Your task to perform on an android device: open app "Instagram" Image 0: 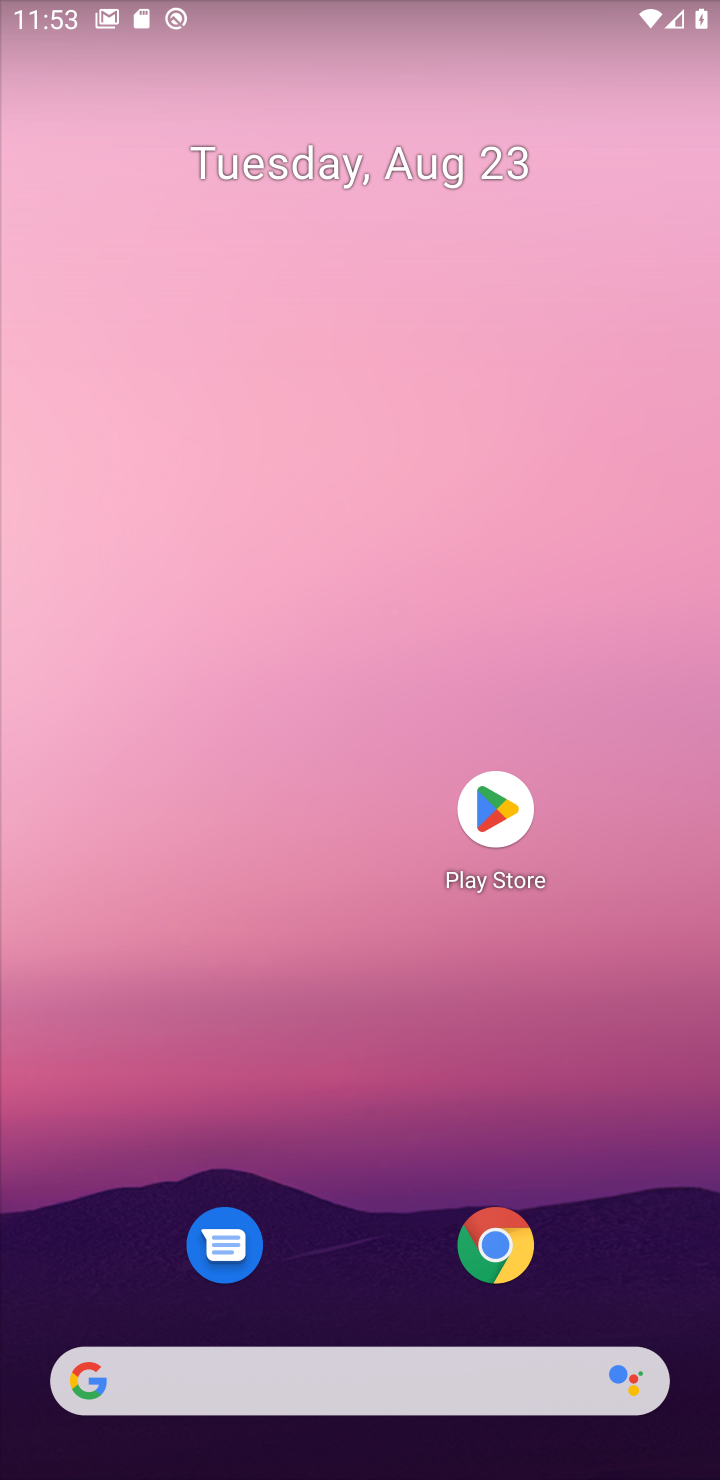
Step 0: click (485, 808)
Your task to perform on an android device: open app "Instagram" Image 1: 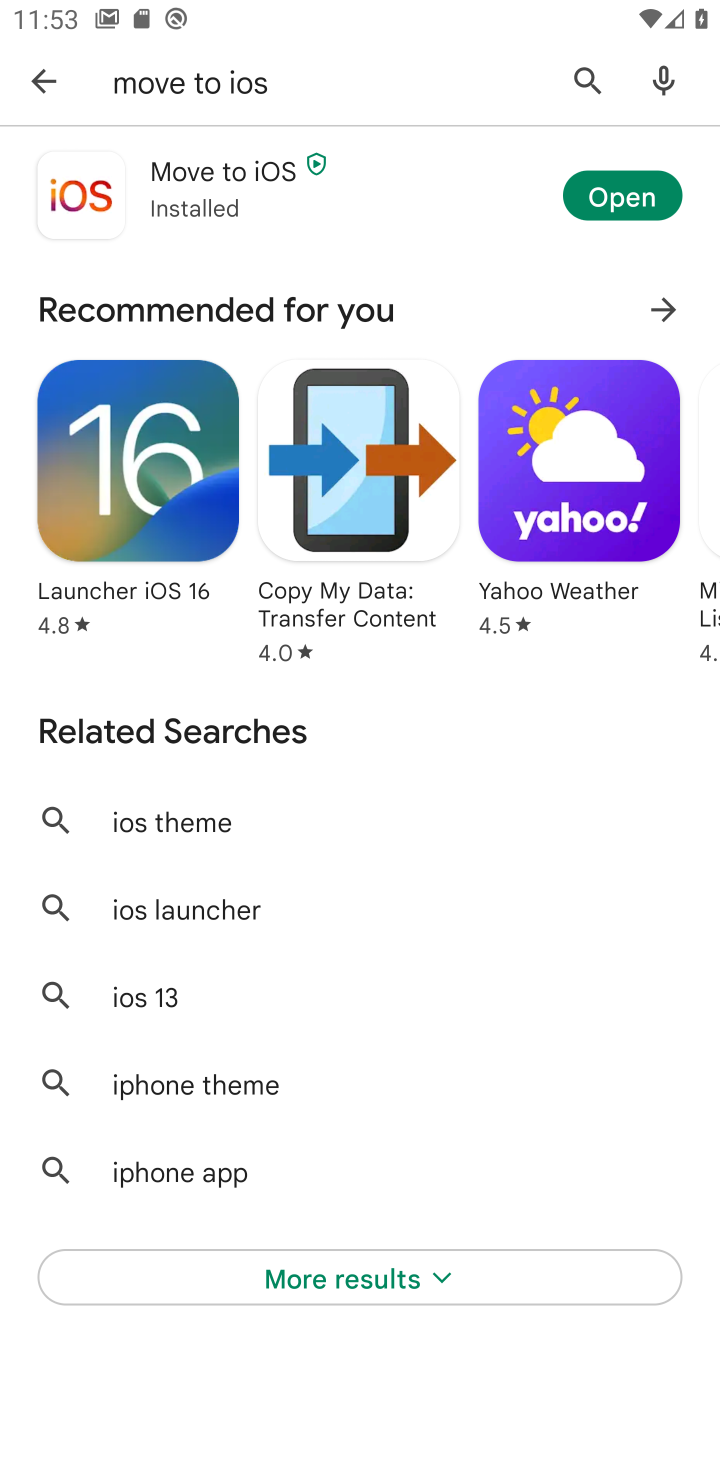
Step 1: click (578, 68)
Your task to perform on an android device: open app "Instagram" Image 2: 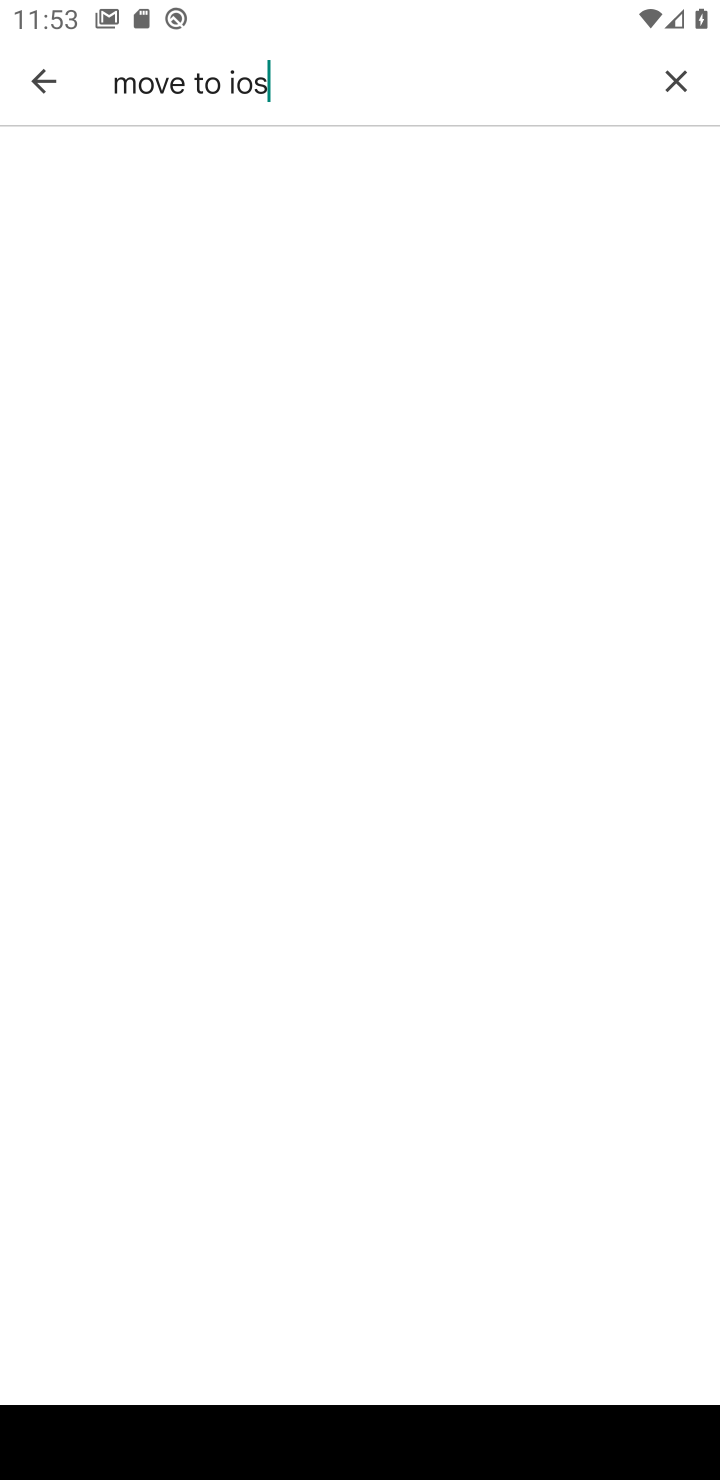
Step 2: click (677, 67)
Your task to perform on an android device: open app "Instagram" Image 3: 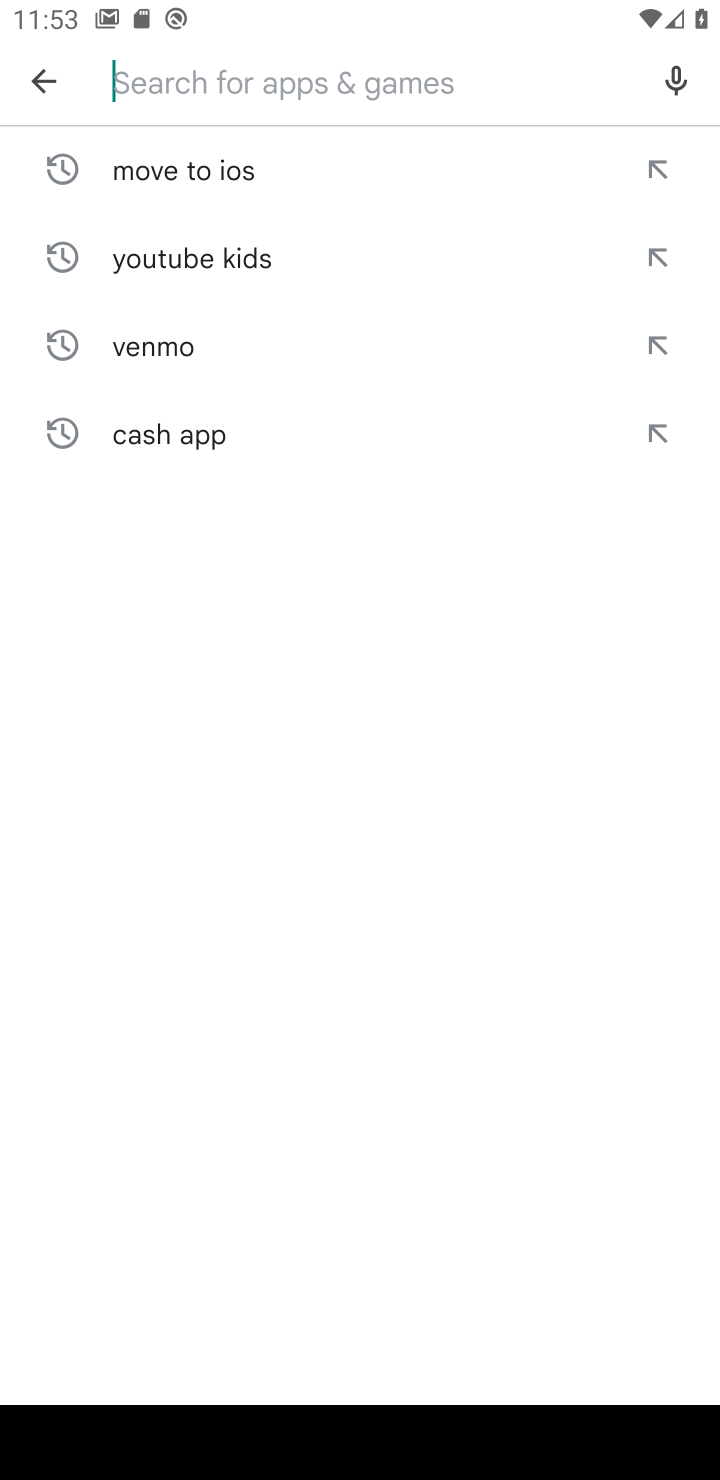
Step 3: type "Instagram"
Your task to perform on an android device: open app "Instagram" Image 4: 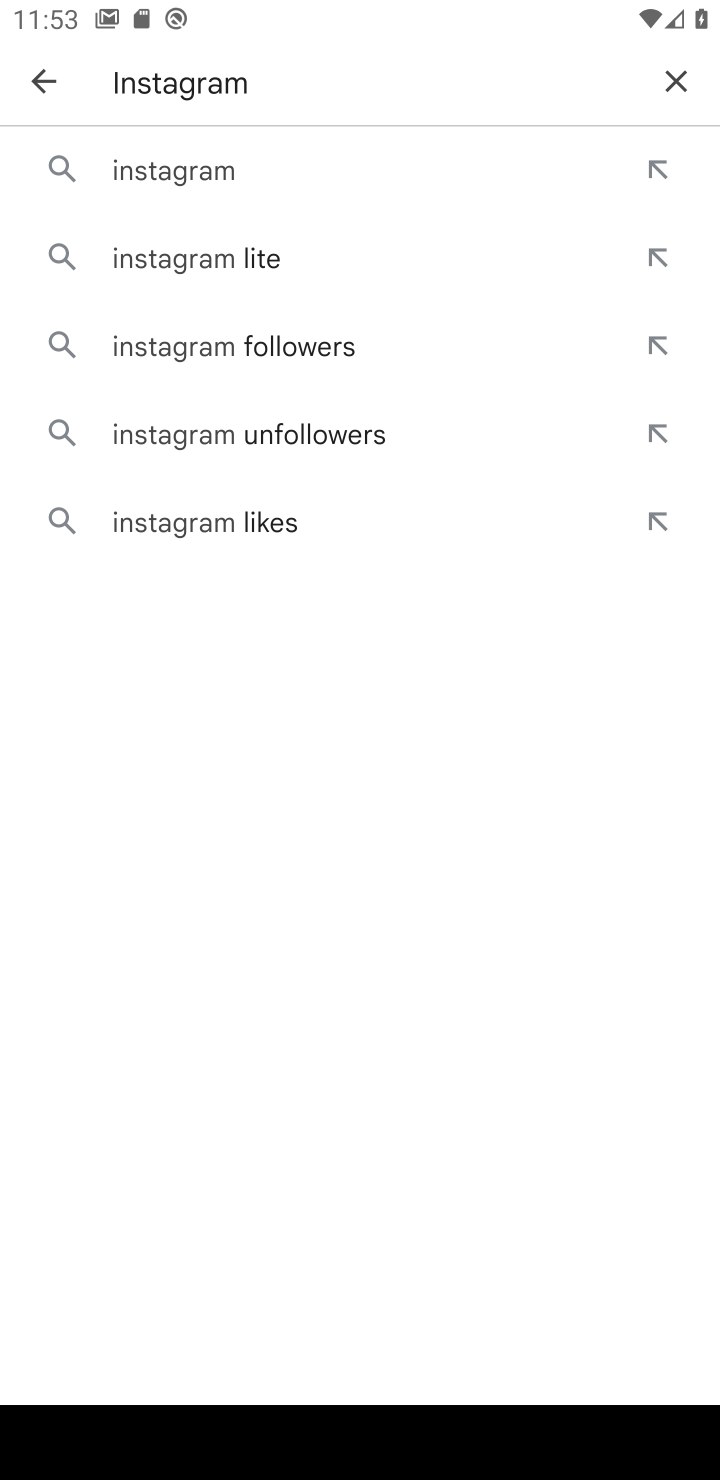
Step 4: click (210, 170)
Your task to perform on an android device: open app "Instagram" Image 5: 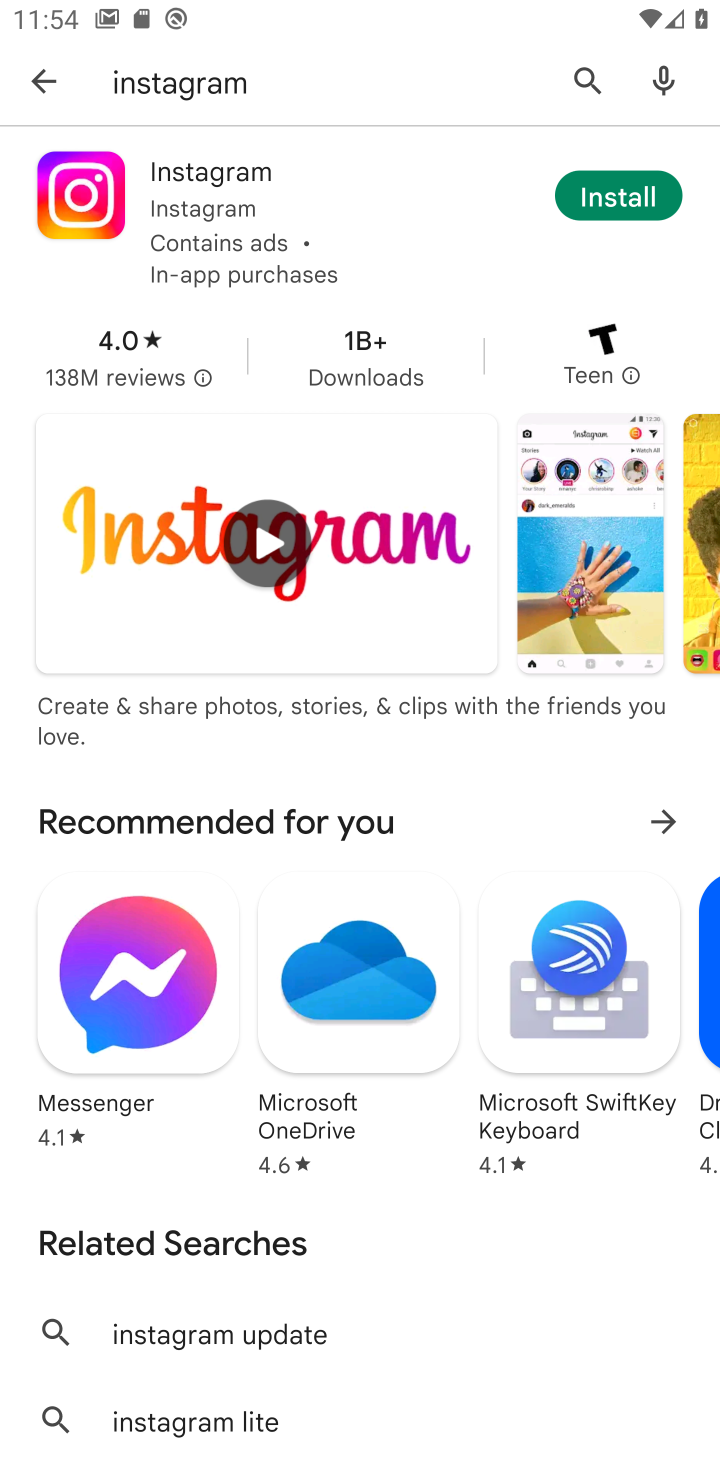
Step 5: task complete